Your task to perform on an android device: Do I have any events tomorrow? Image 0: 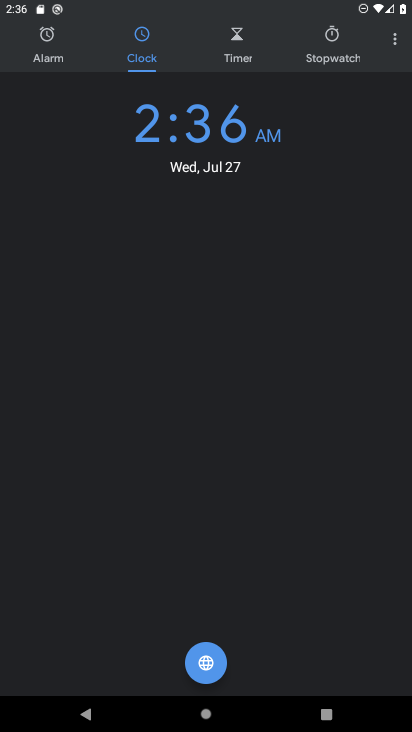
Step 0: press home button
Your task to perform on an android device: Do I have any events tomorrow? Image 1: 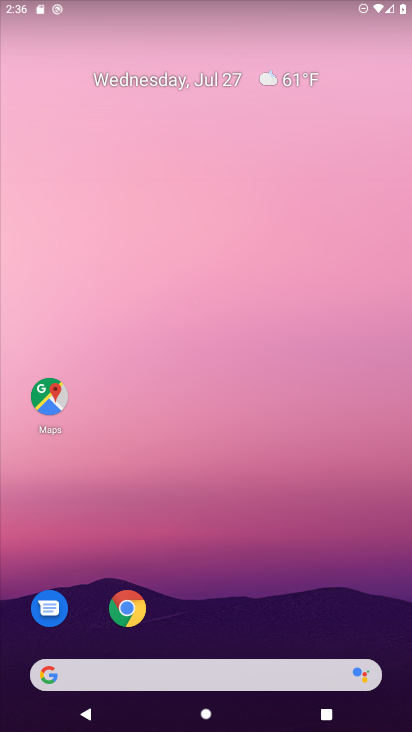
Step 1: drag from (269, 561) to (233, 304)
Your task to perform on an android device: Do I have any events tomorrow? Image 2: 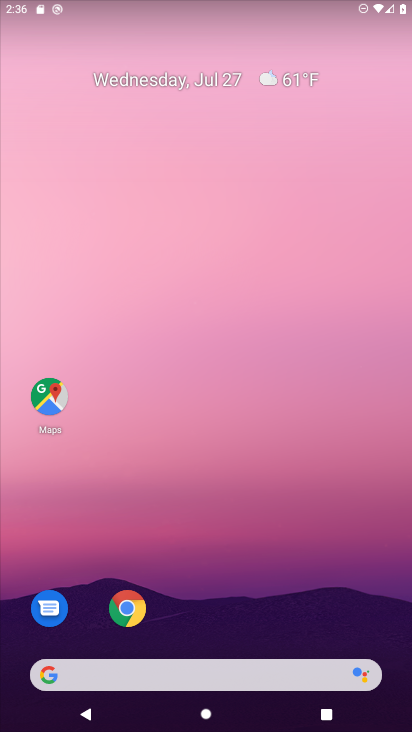
Step 2: drag from (216, 596) to (141, 145)
Your task to perform on an android device: Do I have any events tomorrow? Image 3: 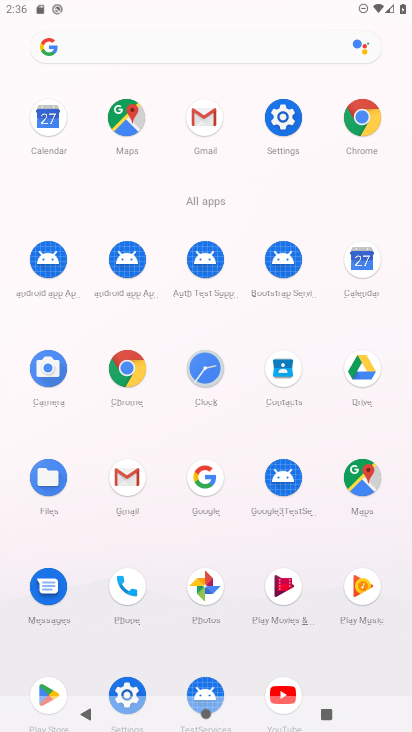
Step 3: click (361, 271)
Your task to perform on an android device: Do I have any events tomorrow? Image 4: 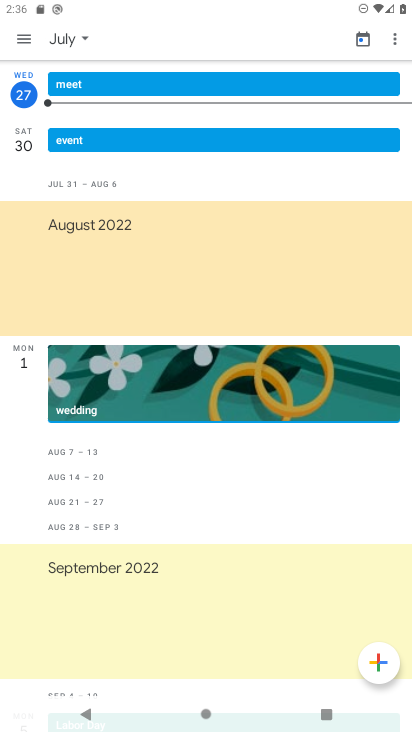
Step 4: task complete